Your task to perform on an android device: turn vacation reply on in the gmail app Image 0: 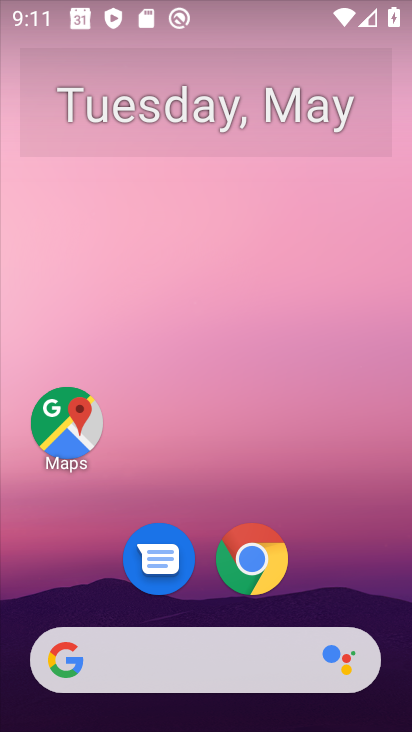
Step 0: drag from (338, 690) to (228, 127)
Your task to perform on an android device: turn vacation reply on in the gmail app Image 1: 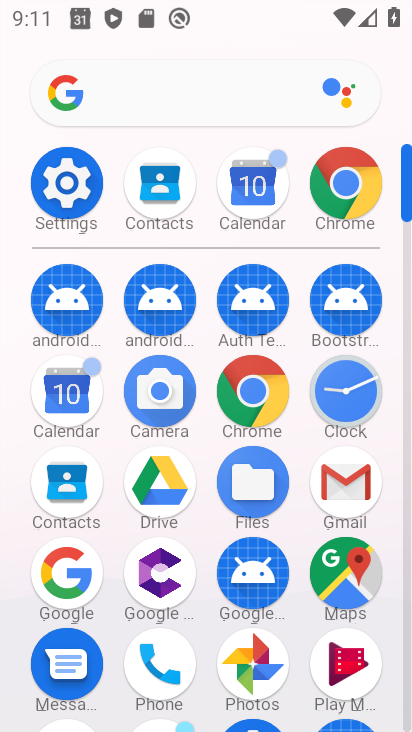
Step 1: click (334, 484)
Your task to perform on an android device: turn vacation reply on in the gmail app Image 2: 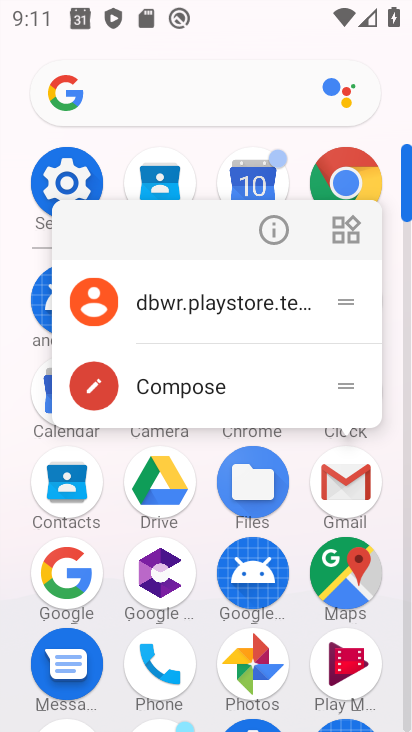
Step 2: click (324, 478)
Your task to perform on an android device: turn vacation reply on in the gmail app Image 3: 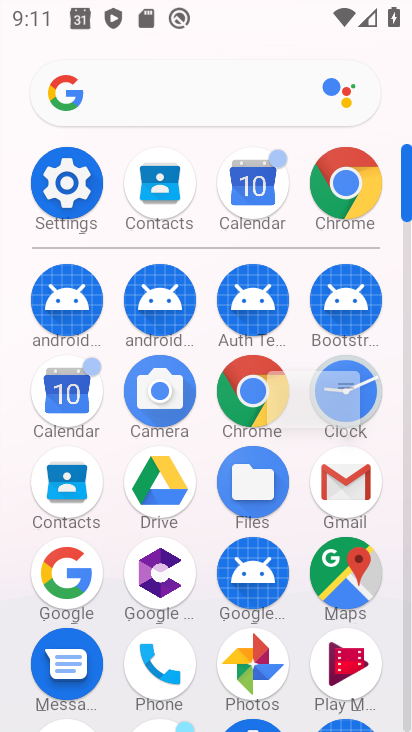
Step 3: click (324, 479)
Your task to perform on an android device: turn vacation reply on in the gmail app Image 4: 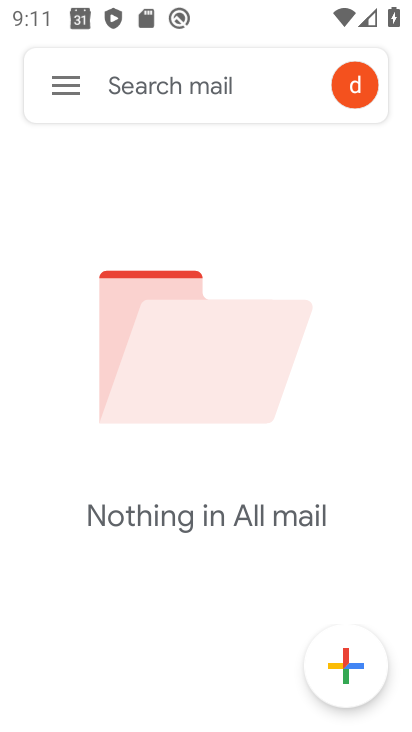
Step 4: click (63, 82)
Your task to perform on an android device: turn vacation reply on in the gmail app Image 5: 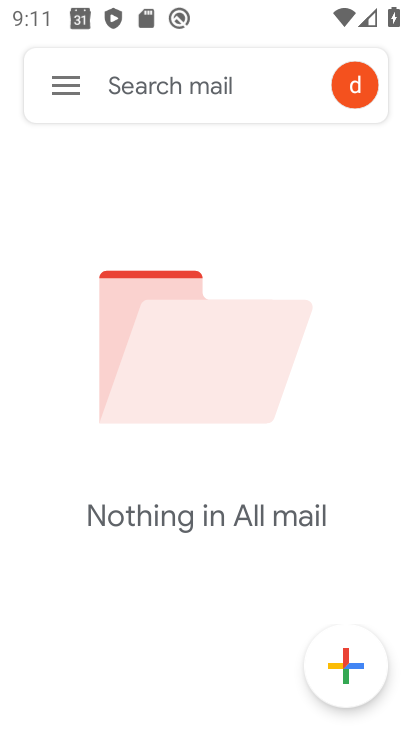
Step 5: click (63, 82)
Your task to perform on an android device: turn vacation reply on in the gmail app Image 6: 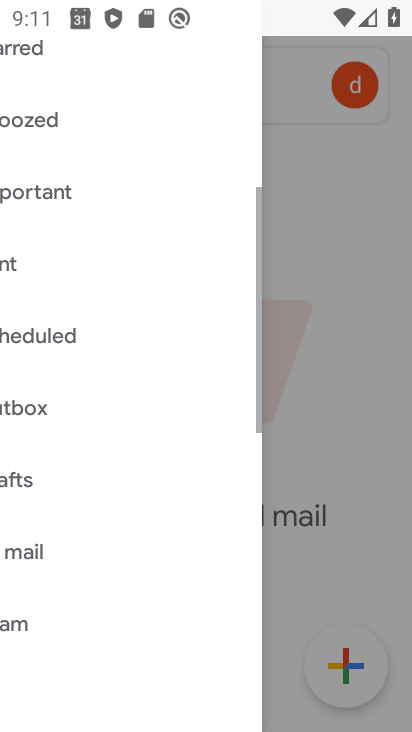
Step 6: click (63, 82)
Your task to perform on an android device: turn vacation reply on in the gmail app Image 7: 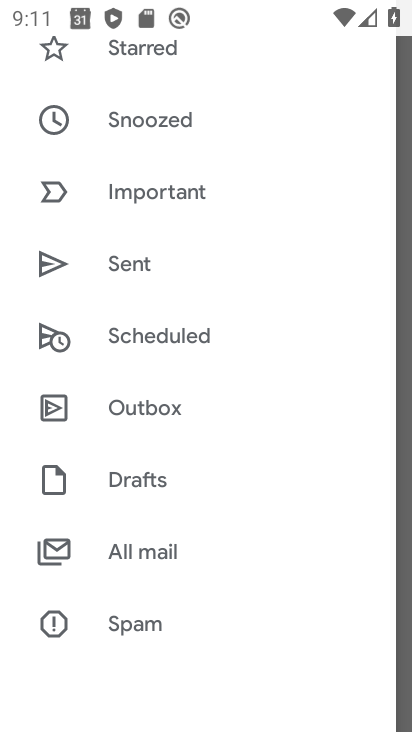
Step 7: drag from (212, 573) to (160, 115)
Your task to perform on an android device: turn vacation reply on in the gmail app Image 8: 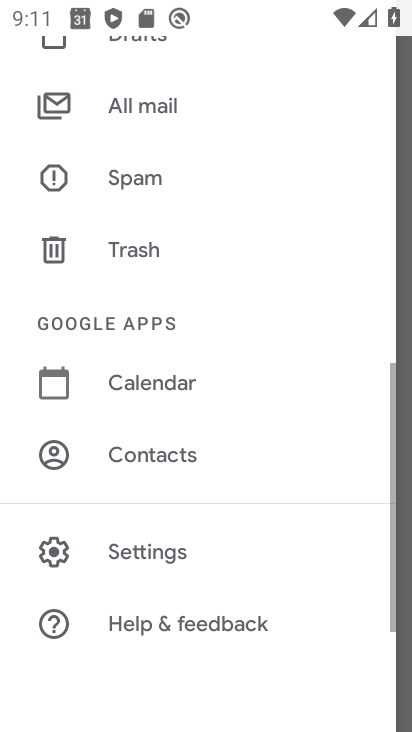
Step 8: drag from (249, 497) to (205, 185)
Your task to perform on an android device: turn vacation reply on in the gmail app Image 9: 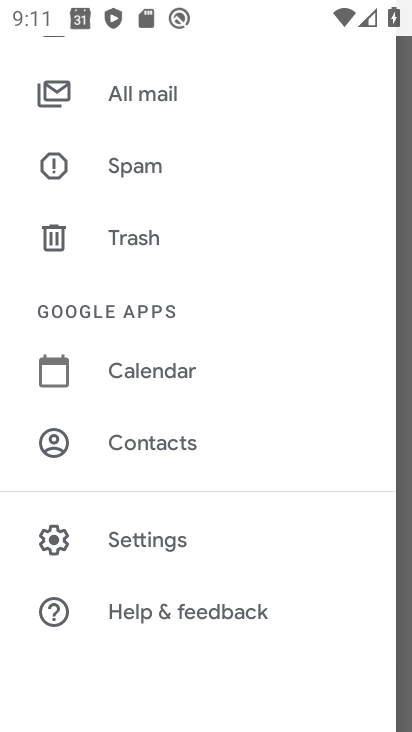
Step 9: click (139, 532)
Your task to perform on an android device: turn vacation reply on in the gmail app Image 10: 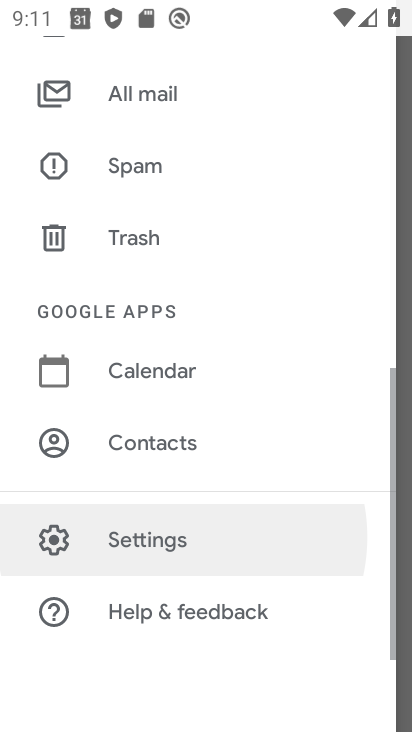
Step 10: click (142, 532)
Your task to perform on an android device: turn vacation reply on in the gmail app Image 11: 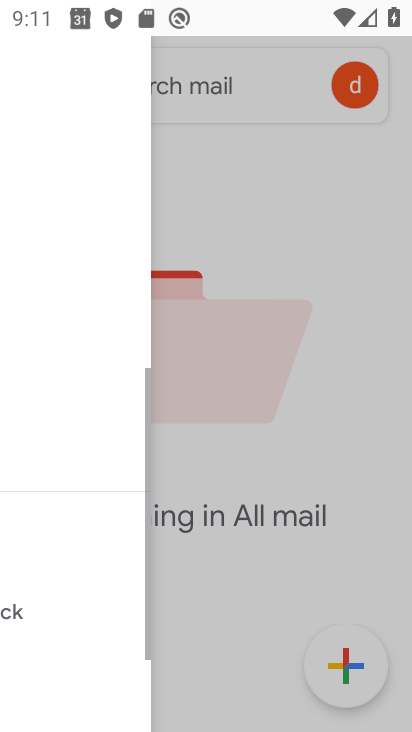
Step 11: click (146, 535)
Your task to perform on an android device: turn vacation reply on in the gmail app Image 12: 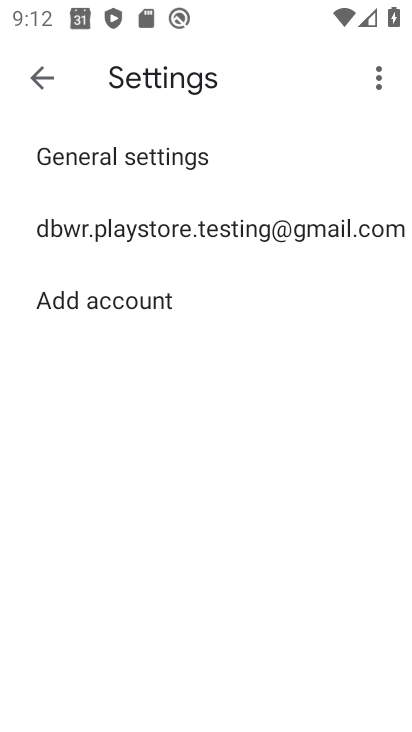
Step 12: click (200, 222)
Your task to perform on an android device: turn vacation reply on in the gmail app Image 13: 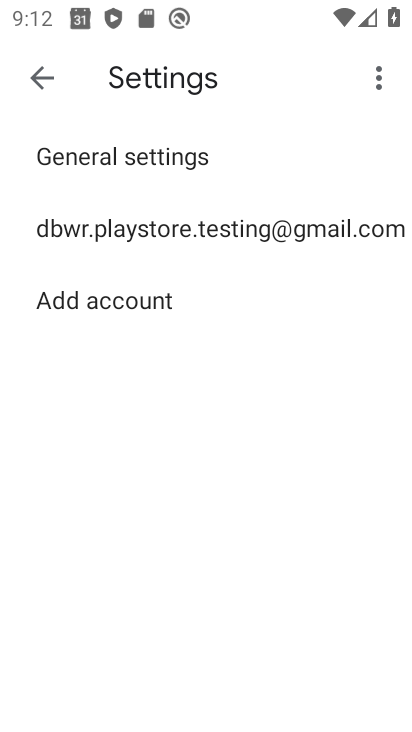
Step 13: click (200, 222)
Your task to perform on an android device: turn vacation reply on in the gmail app Image 14: 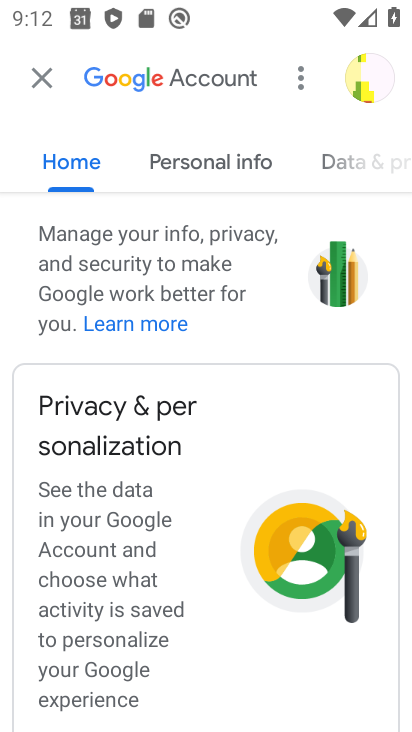
Step 14: click (43, 84)
Your task to perform on an android device: turn vacation reply on in the gmail app Image 15: 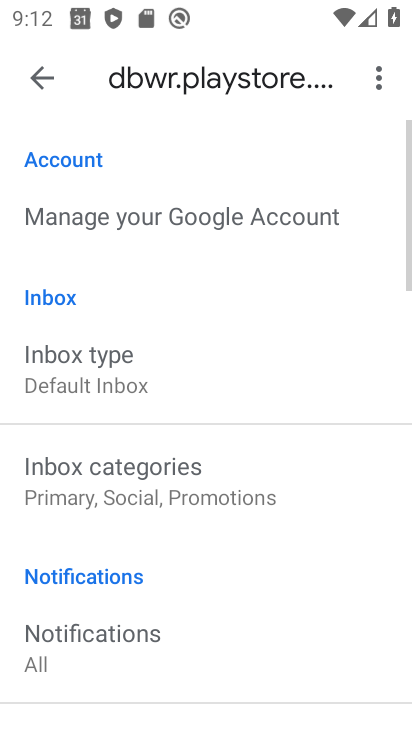
Step 15: drag from (172, 559) to (178, 193)
Your task to perform on an android device: turn vacation reply on in the gmail app Image 16: 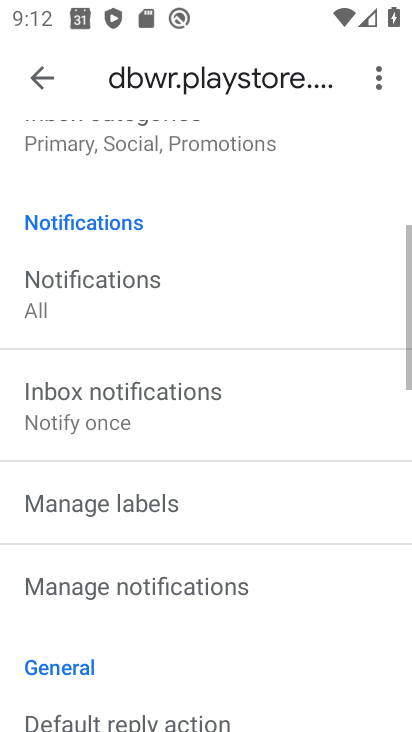
Step 16: drag from (217, 490) to (210, 61)
Your task to perform on an android device: turn vacation reply on in the gmail app Image 17: 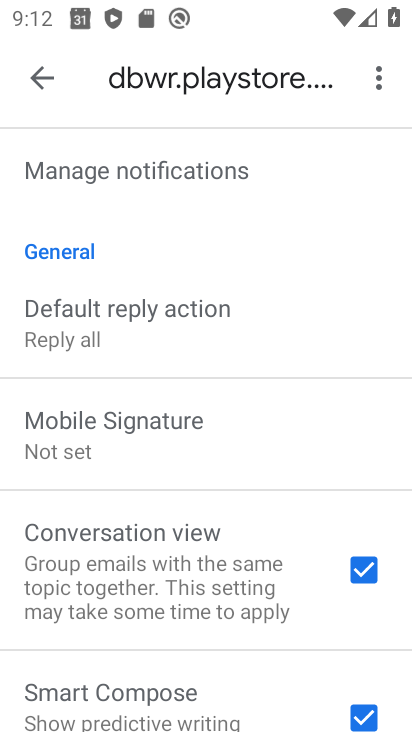
Step 17: drag from (154, 630) to (103, 140)
Your task to perform on an android device: turn vacation reply on in the gmail app Image 18: 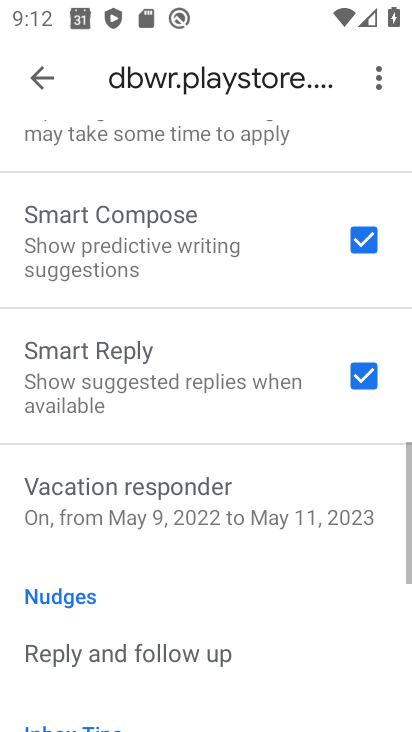
Step 18: drag from (173, 532) to (127, 168)
Your task to perform on an android device: turn vacation reply on in the gmail app Image 19: 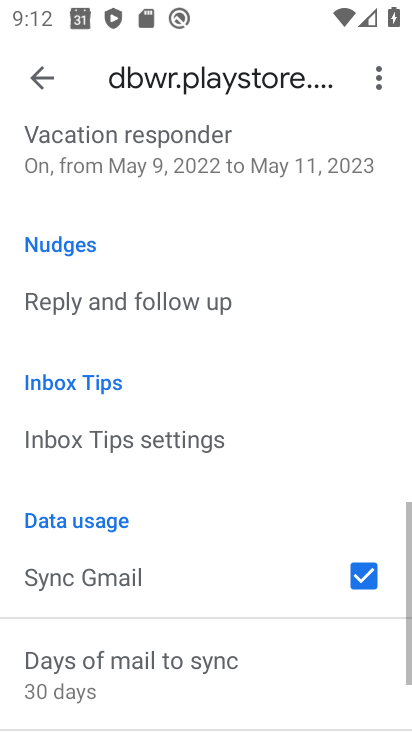
Step 19: drag from (138, 588) to (111, 171)
Your task to perform on an android device: turn vacation reply on in the gmail app Image 20: 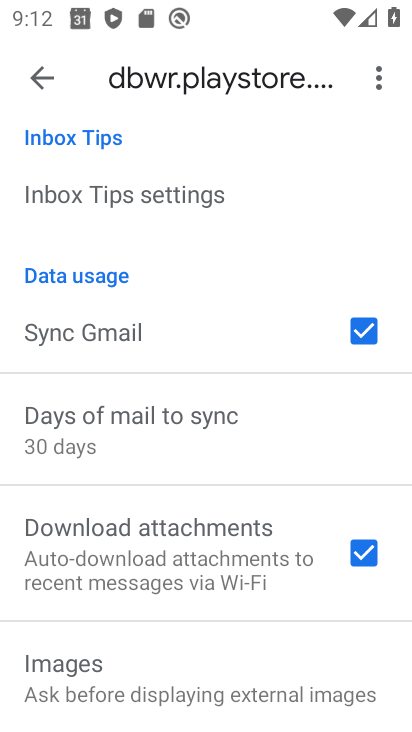
Step 20: drag from (182, 496) to (168, 214)
Your task to perform on an android device: turn vacation reply on in the gmail app Image 21: 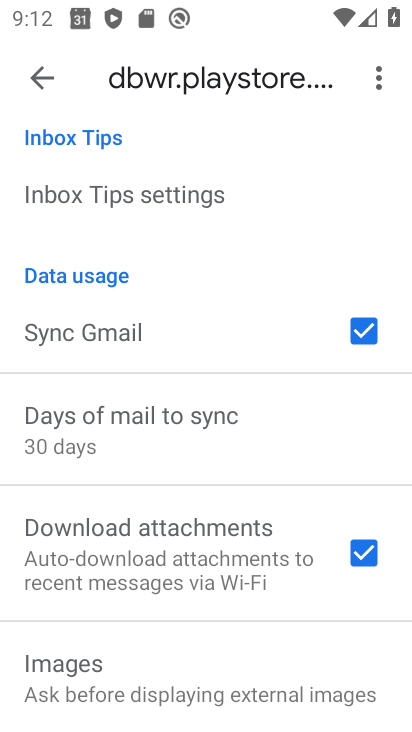
Step 21: drag from (168, 634) to (205, 216)
Your task to perform on an android device: turn vacation reply on in the gmail app Image 22: 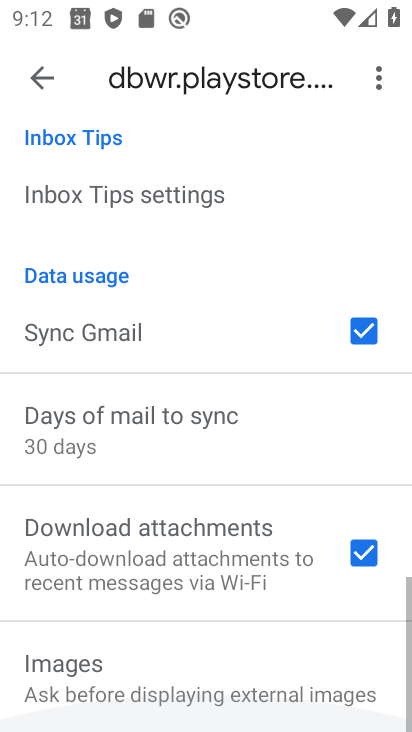
Step 22: drag from (261, 485) to (256, 135)
Your task to perform on an android device: turn vacation reply on in the gmail app Image 23: 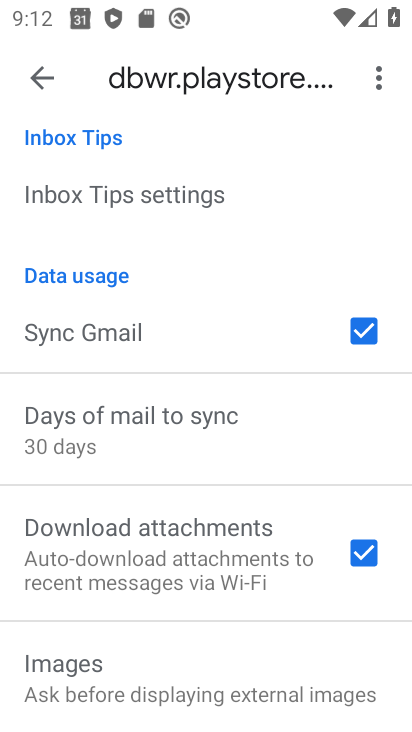
Step 23: click (35, 72)
Your task to perform on an android device: turn vacation reply on in the gmail app Image 24: 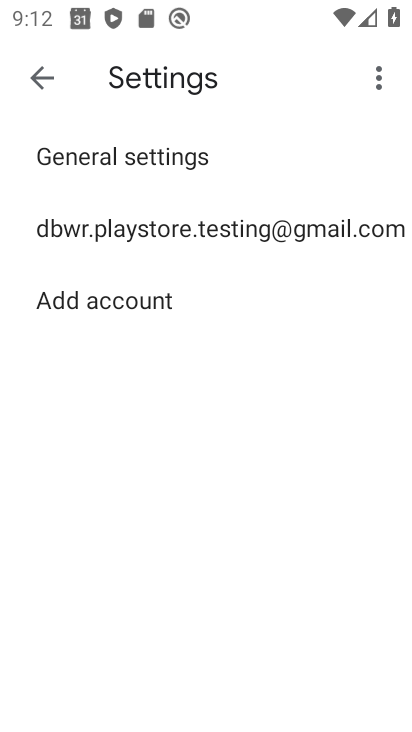
Step 24: click (127, 232)
Your task to perform on an android device: turn vacation reply on in the gmail app Image 25: 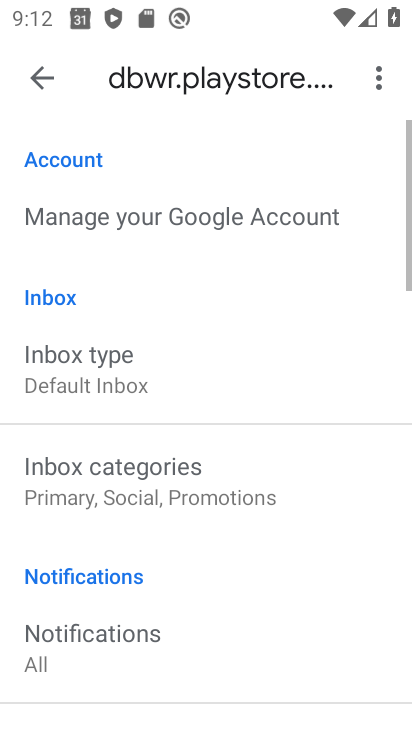
Step 25: drag from (167, 516) to (138, 142)
Your task to perform on an android device: turn vacation reply on in the gmail app Image 26: 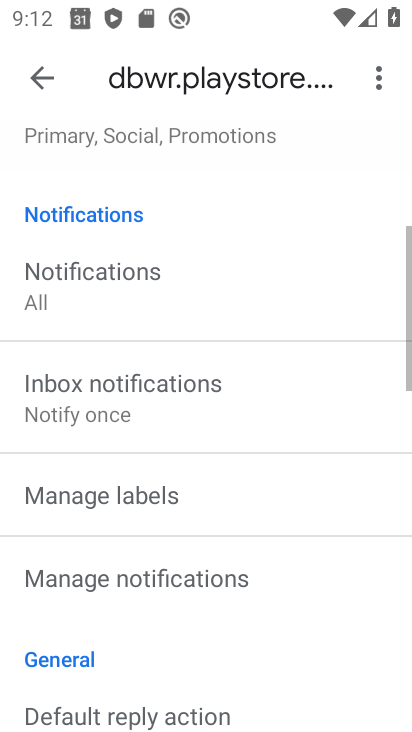
Step 26: drag from (154, 497) to (151, 109)
Your task to perform on an android device: turn vacation reply on in the gmail app Image 27: 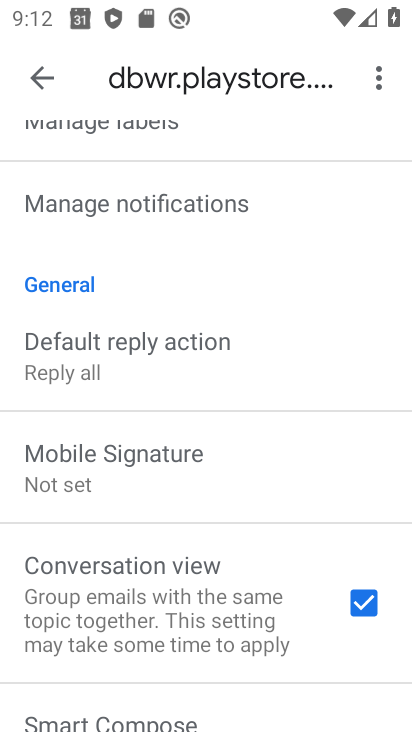
Step 27: drag from (166, 594) to (164, 399)
Your task to perform on an android device: turn vacation reply on in the gmail app Image 28: 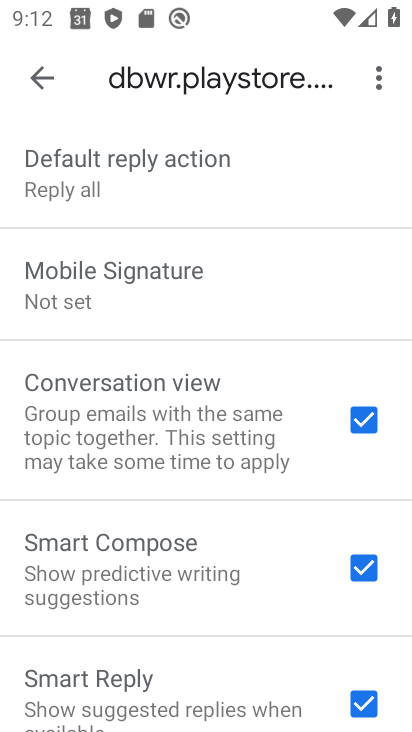
Step 28: drag from (176, 626) to (135, 264)
Your task to perform on an android device: turn vacation reply on in the gmail app Image 29: 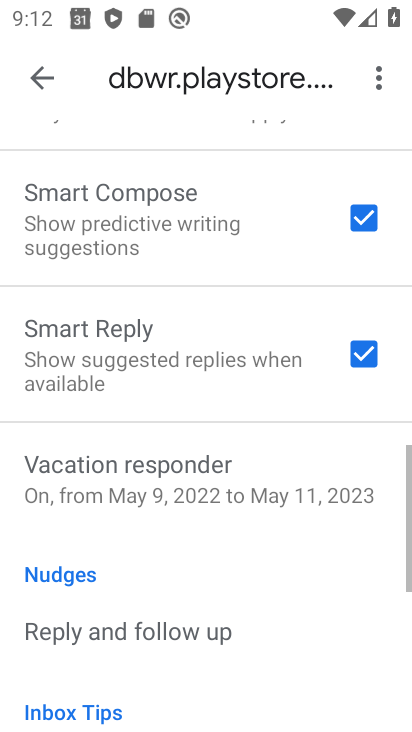
Step 29: drag from (209, 534) to (74, 235)
Your task to perform on an android device: turn vacation reply on in the gmail app Image 30: 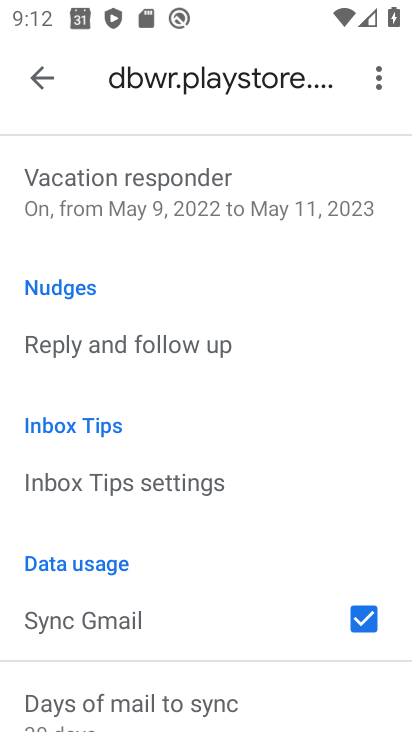
Step 30: click (194, 213)
Your task to perform on an android device: turn vacation reply on in the gmail app Image 31: 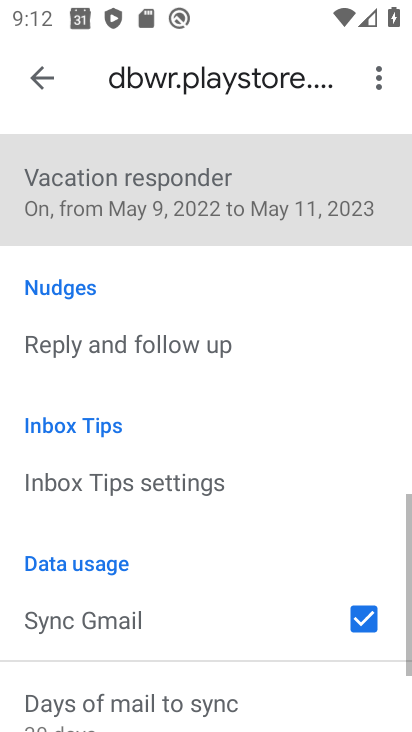
Step 31: click (194, 213)
Your task to perform on an android device: turn vacation reply on in the gmail app Image 32: 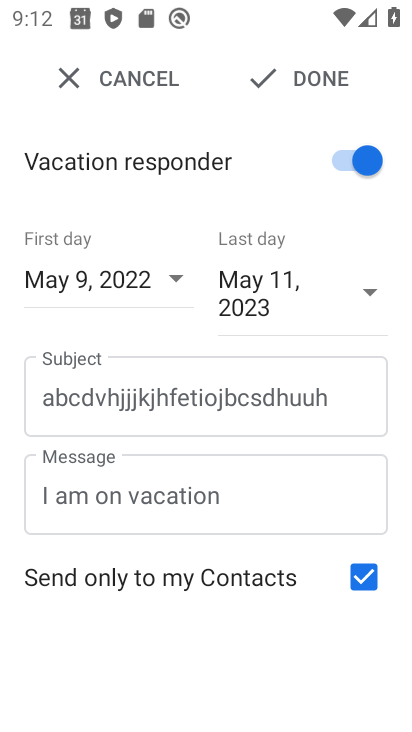
Step 32: task complete